Your task to perform on an android device: turn off location Image 0: 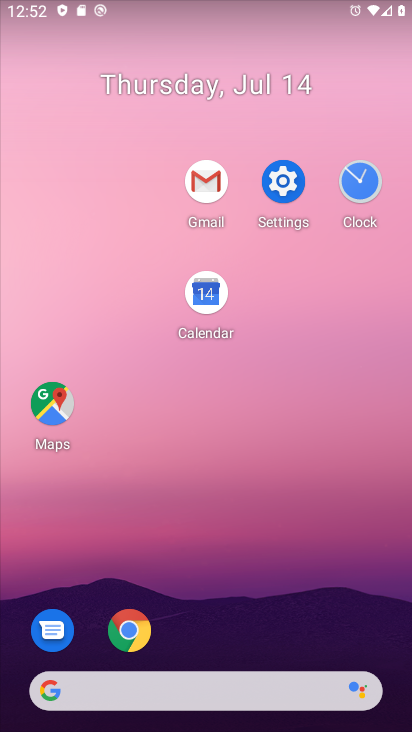
Step 0: click (297, 169)
Your task to perform on an android device: turn off location Image 1: 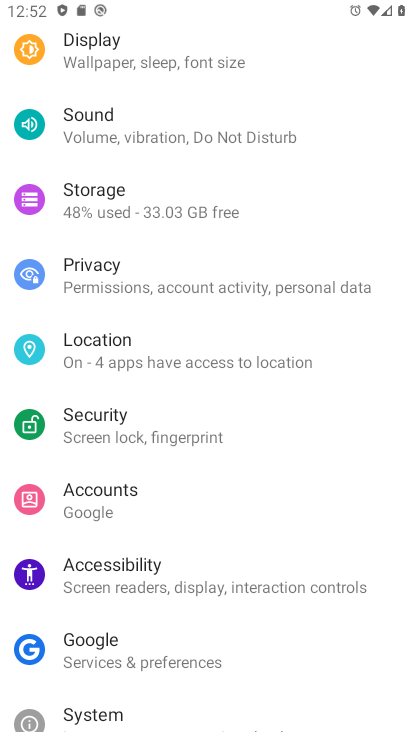
Step 1: click (209, 370)
Your task to perform on an android device: turn off location Image 2: 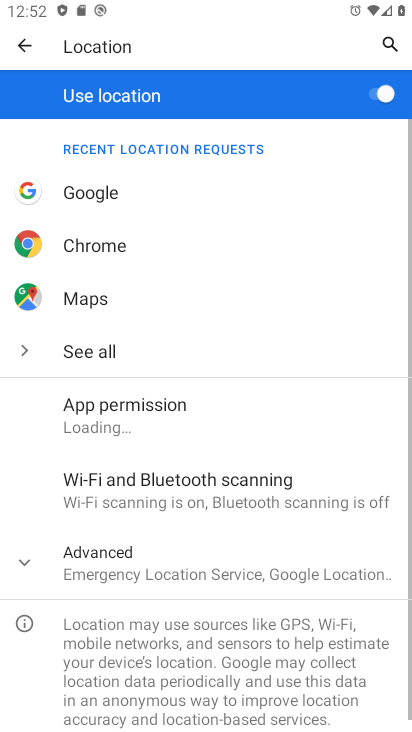
Step 2: click (388, 102)
Your task to perform on an android device: turn off location Image 3: 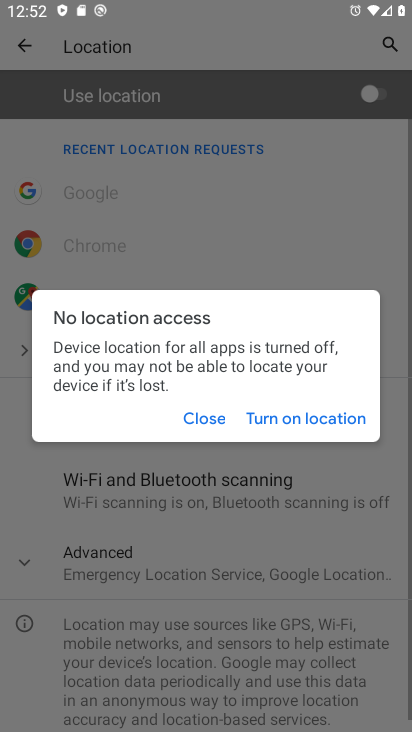
Step 3: task complete